Your task to perform on an android device: toggle location history Image 0: 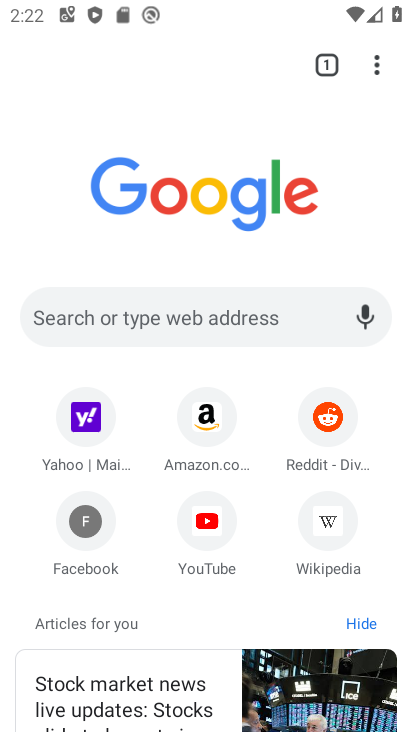
Step 0: press home button
Your task to perform on an android device: toggle location history Image 1: 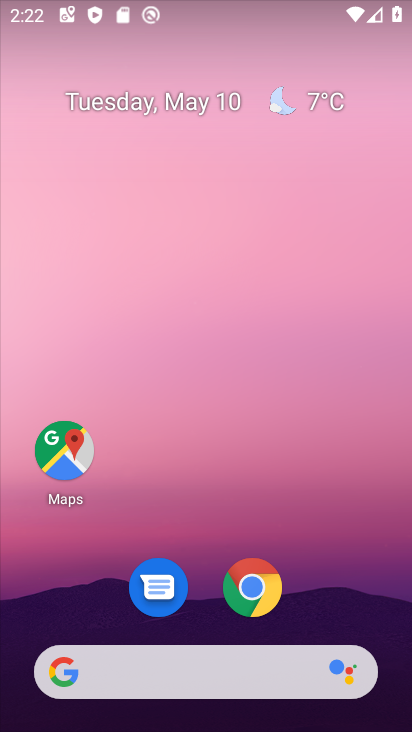
Step 1: drag from (369, 586) to (260, 43)
Your task to perform on an android device: toggle location history Image 2: 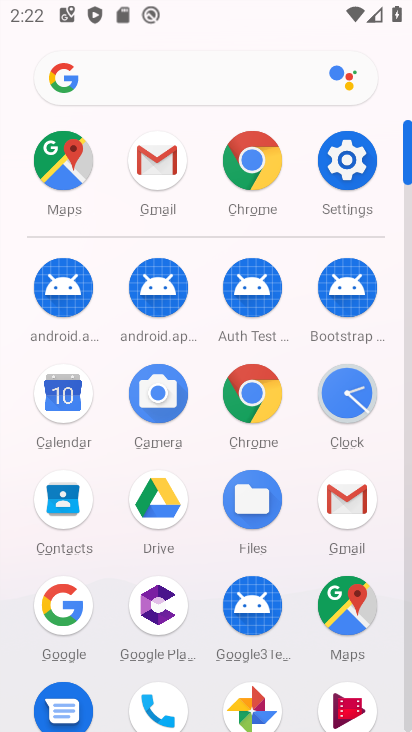
Step 2: drag from (212, 574) to (188, 310)
Your task to perform on an android device: toggle location history Image 3: 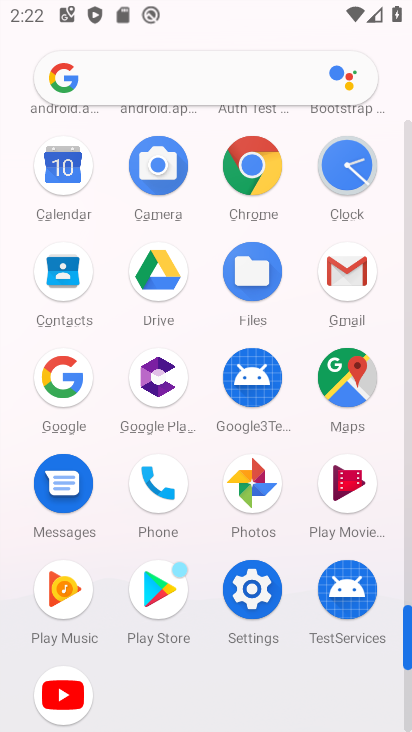
Step 3: click (248, 589)
Your task to perform on an android device: toggle location history Image 4: 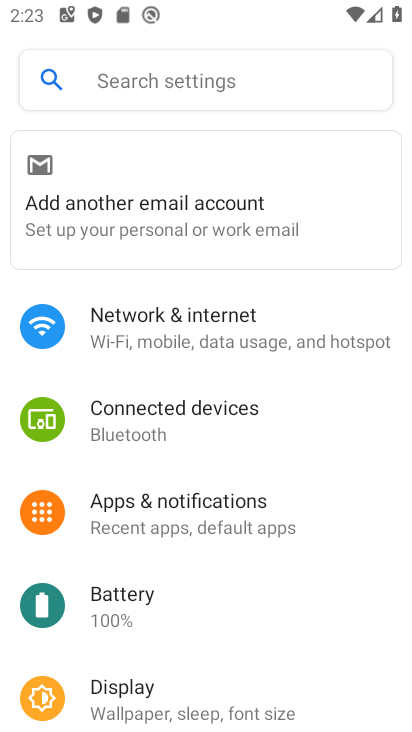
Step 4: drag from (214, 680) to (177, 356)
Your task to perform on an android device: toggle location history Image 5: 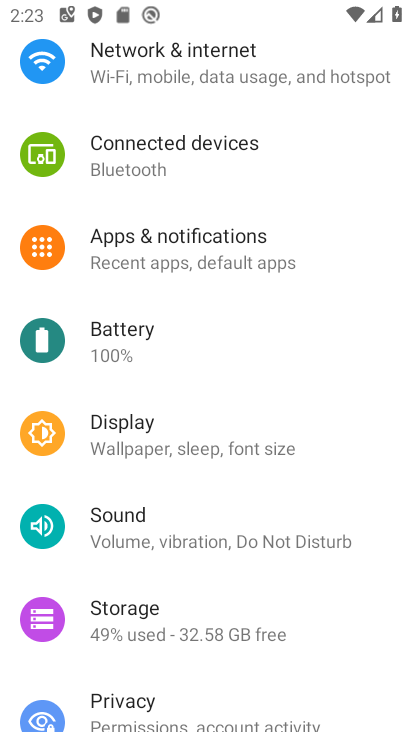
Step 5: drag from (191, 649) to (181, 328)
Your task to perform on an android device: toggle location history Image 6: 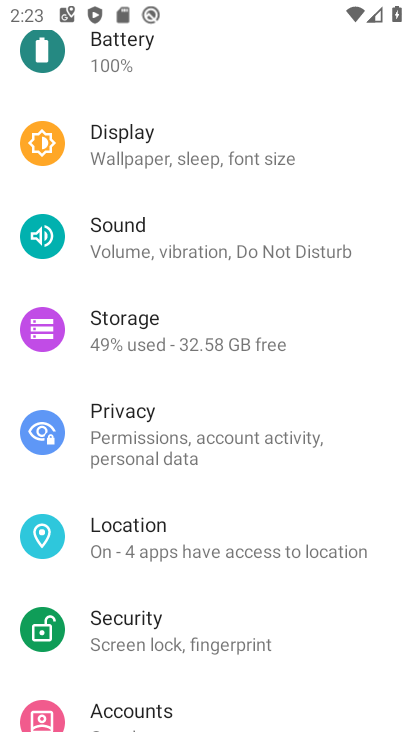
Step 6: click (154, 540)
Your task to perform on an android device: toggle location history Image 7: 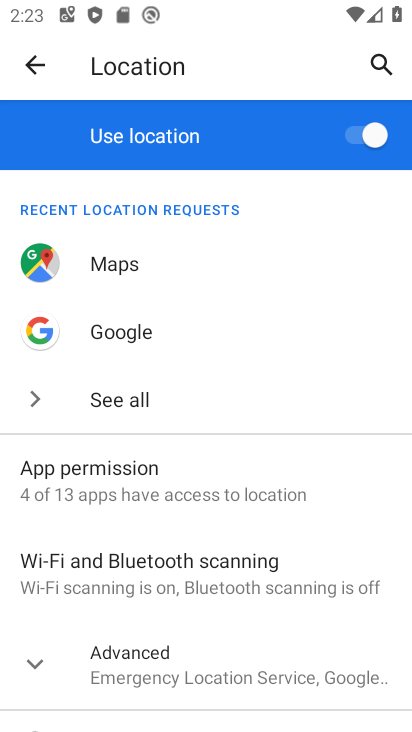
Step 7: drag from (243, 619) to (210, 347)
Your task to perform on an android device: toggle location history Image 8: 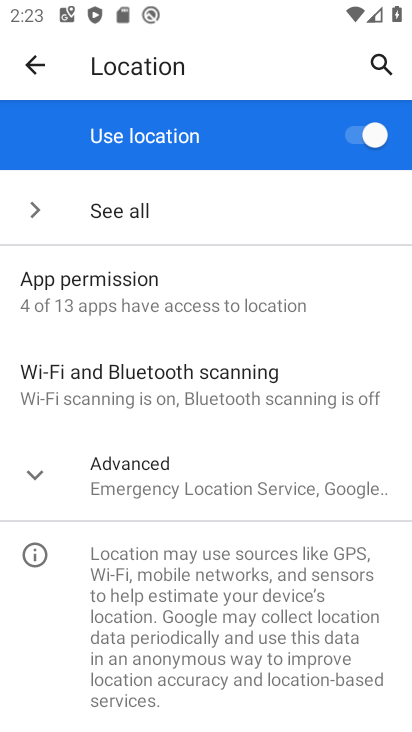
Step 8: click (126, 476)
Your task to perform on an android device: toggle location history Image 9: 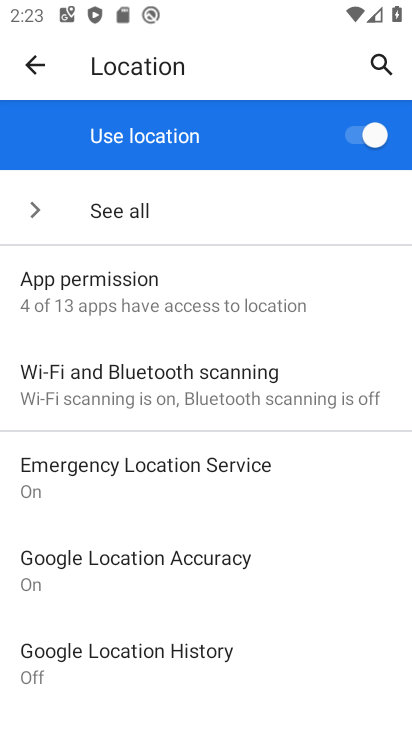
Step 9: drag from (246, 612) to (227, 379)
Your task to perform on an android device: toggle location history Image 10: 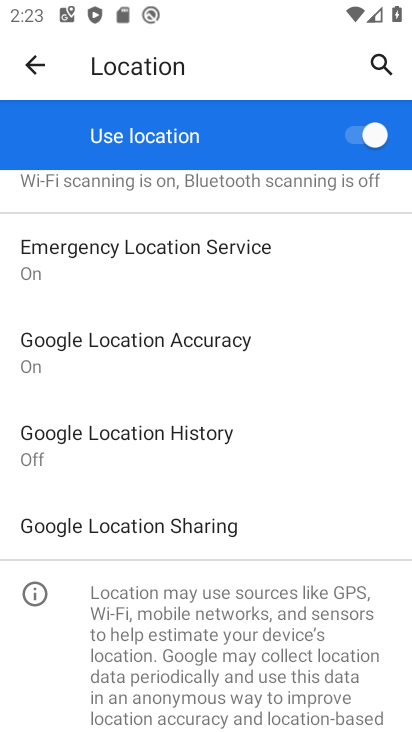
Step 10: click (171, 439)
Your task to perform on an android device: toggle location history Image 11: 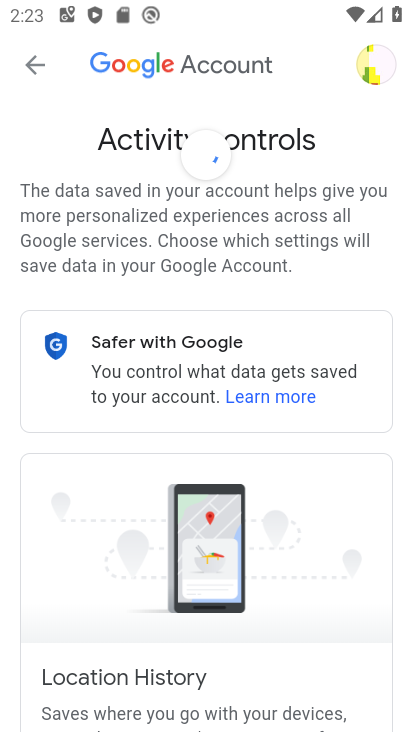
Step 11: drag from (273, 637) to (235, 228)
Your task to perform on an android device: toggle location history Image 12: 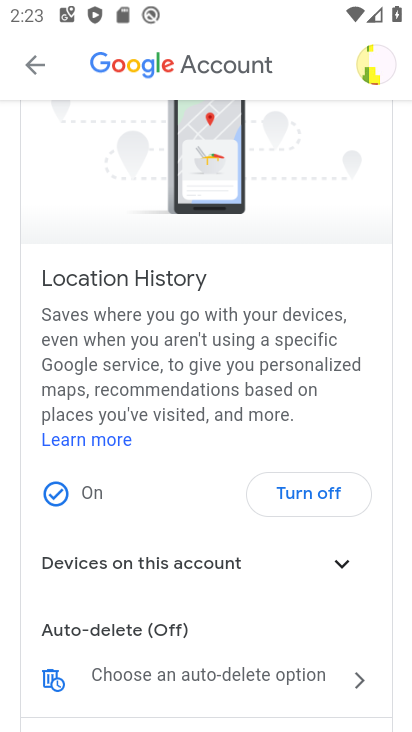
Step 12: drag from (246, 631) to (236, 376)
Your task to perform on an android device: toggle location history Image 13: 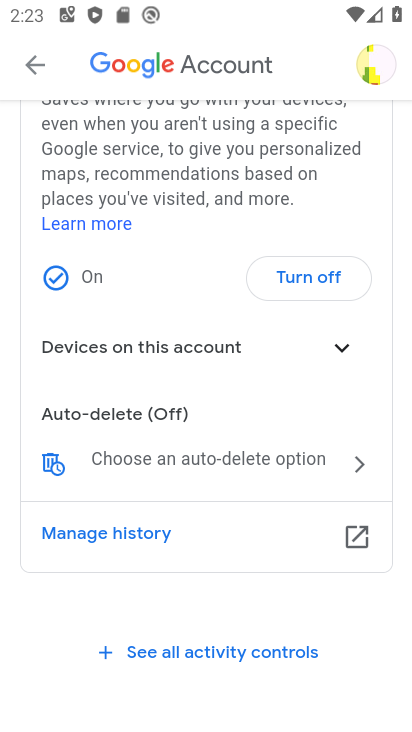
Step 13: click (316, 277)
Your task to perform on an android device: toggle location history Image 14: 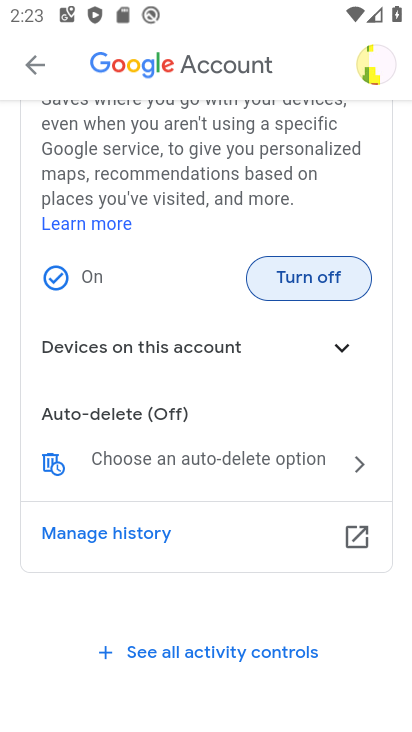
Step 14: click (276, 274)
Your task to perform on an android device: toggle location history Image 15: 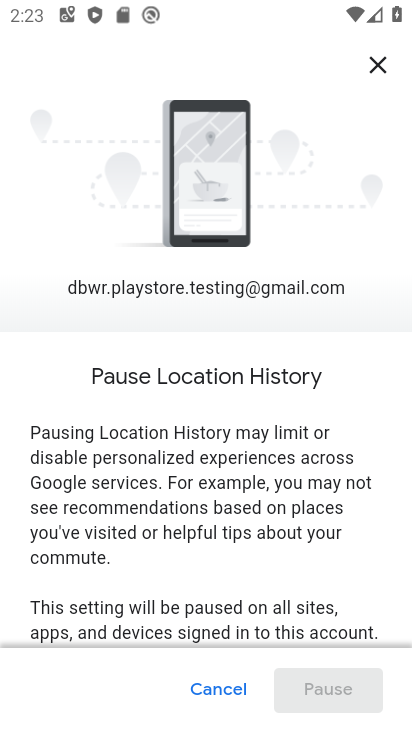
Step 15: drag from (291, 590) to (254, 163)
Your task to perform on an android device: toggle location history Image 16: 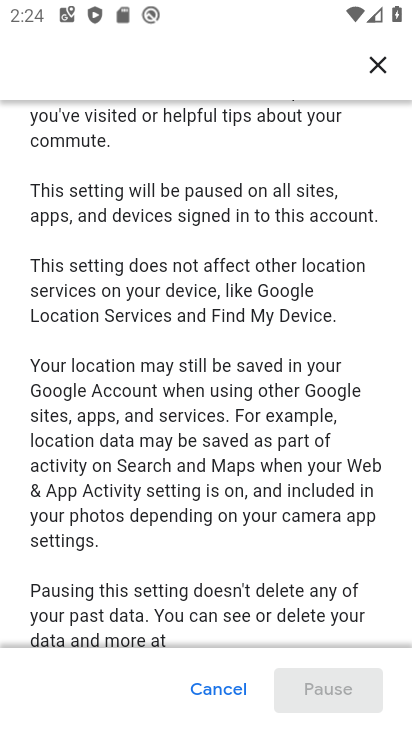
Step 16: drag from (255, 603) to (228, 147)
Your task to perform on an android device: toggle location history Image 17: 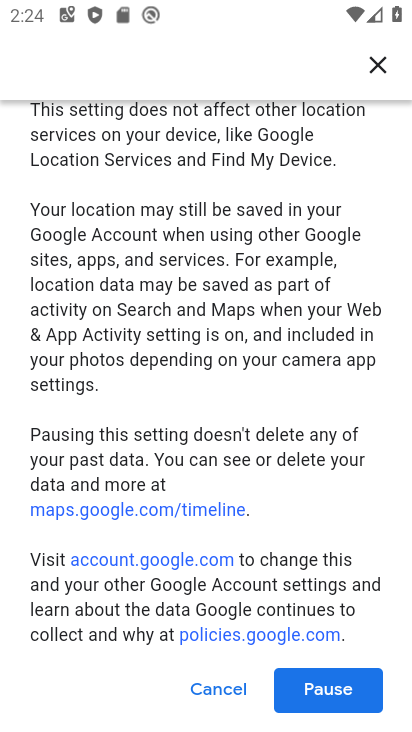
Step 17: click (322, 680)
Your task to perform on an android device: toggle location history Image 18: 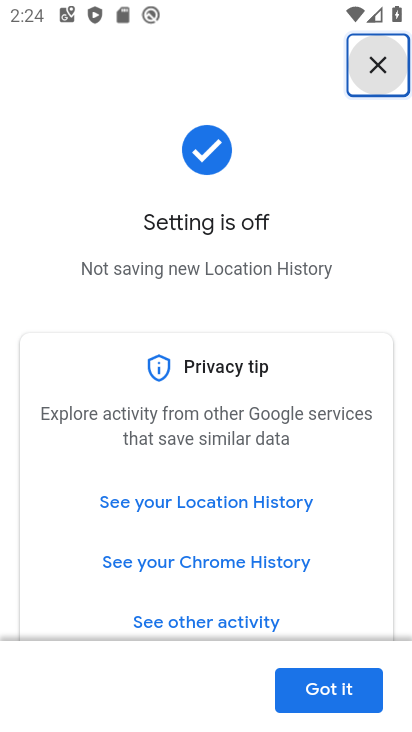
Step 18: click (326, 690)
Your task to perform on an android device: toggle location history Image 19: 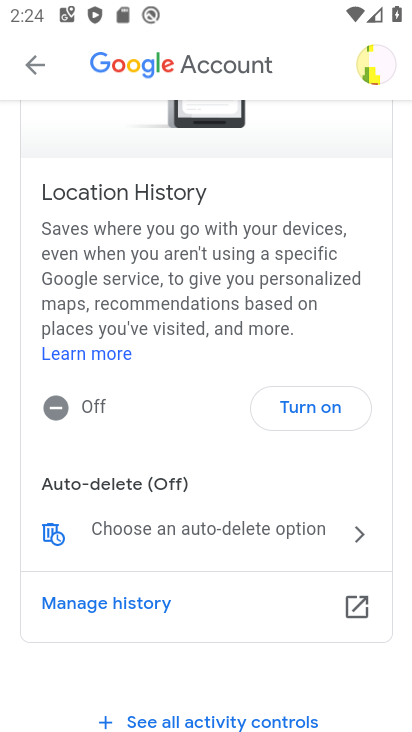
Step 19: task complete